Your task to perform on an android device: View the shopping cart on newegg. Search for "alienware area 51" on newegg, select the first entry, add it to the cart, then select checkout. Image 0: 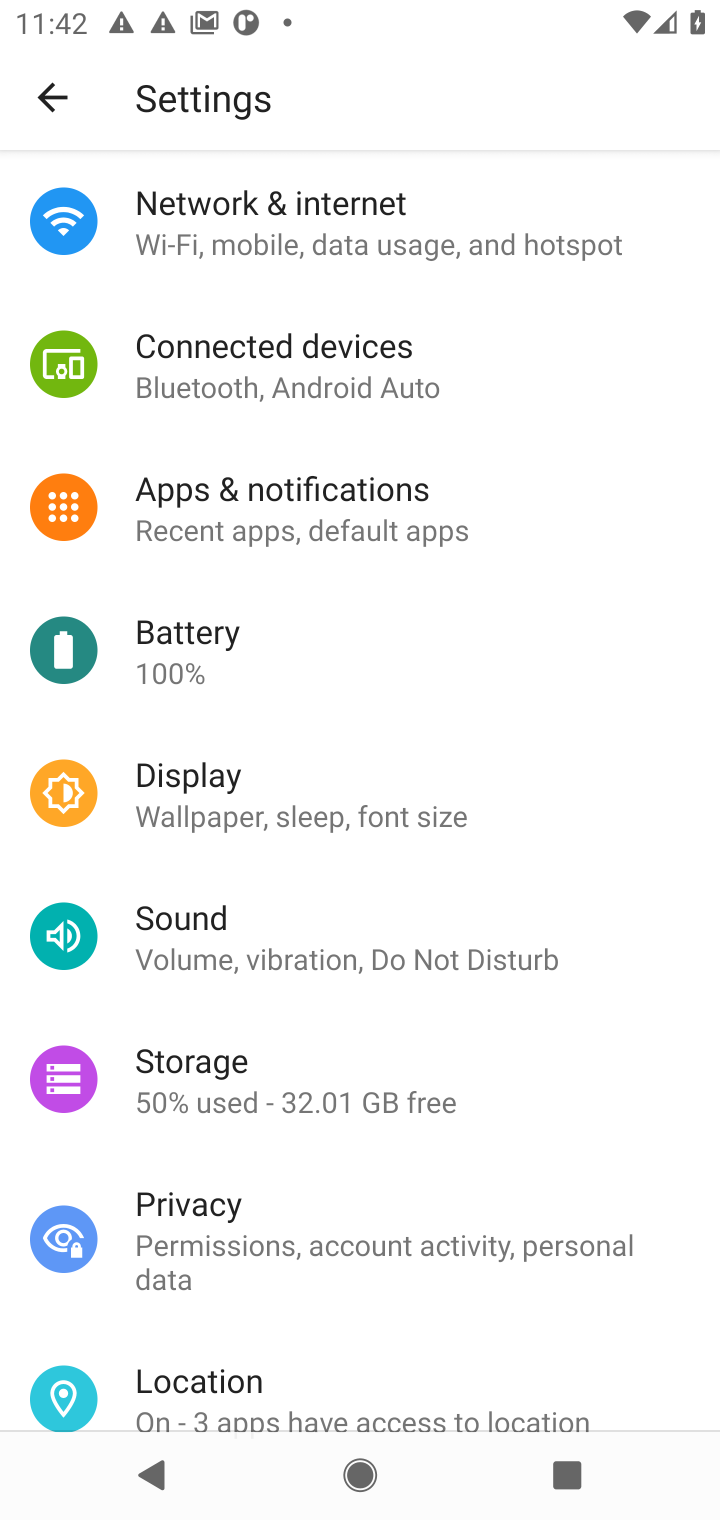
Step 0: press home button
Your task to perform on an android device: View the shopping cart on newegg. Search for "alienware area 51" on newegg, select the first entry, add it to the cart, then select checkout. Image 1: 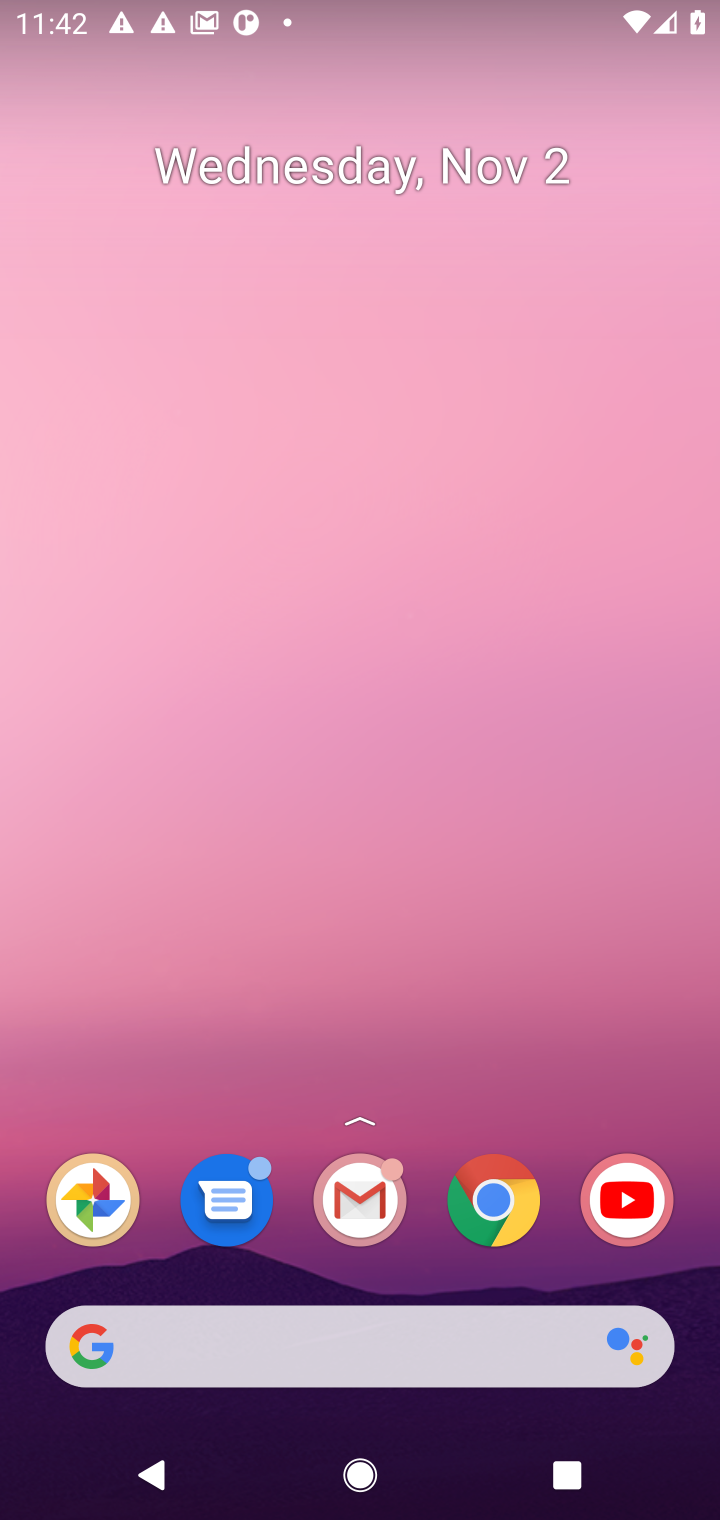
Step 1: click (496, 1189)
Your task to perform on an android device: View the shopping cart on newegg. Search for "alienware area 51" on newegg, select the first entry, add it to the cart, then select checkout. Image 2: 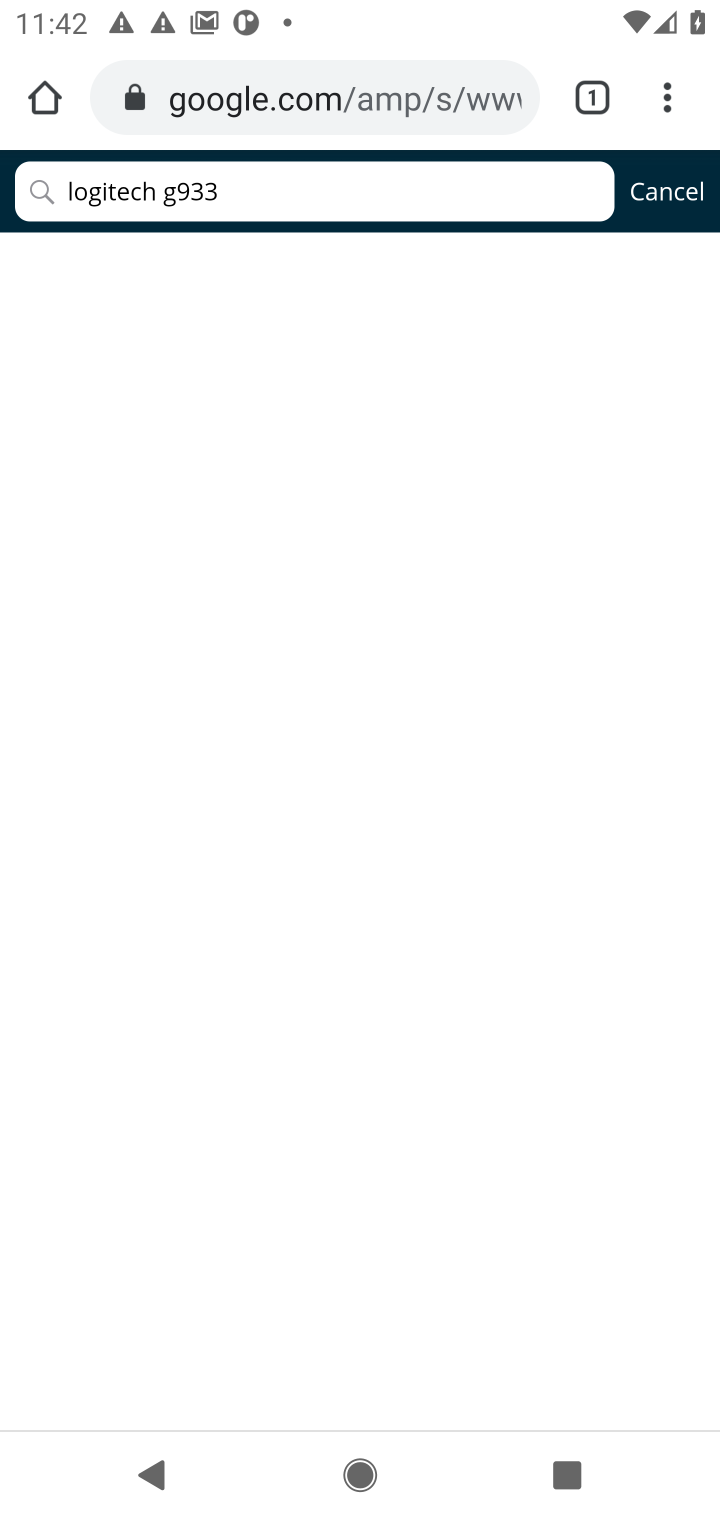
Step 2: click (40, 96)
Your task to perform on an android device: View the shopping cart on newegg. Search for "alienware area 51" on newegg, select the first entry, add it to the cart, then select checkout. Image 3: 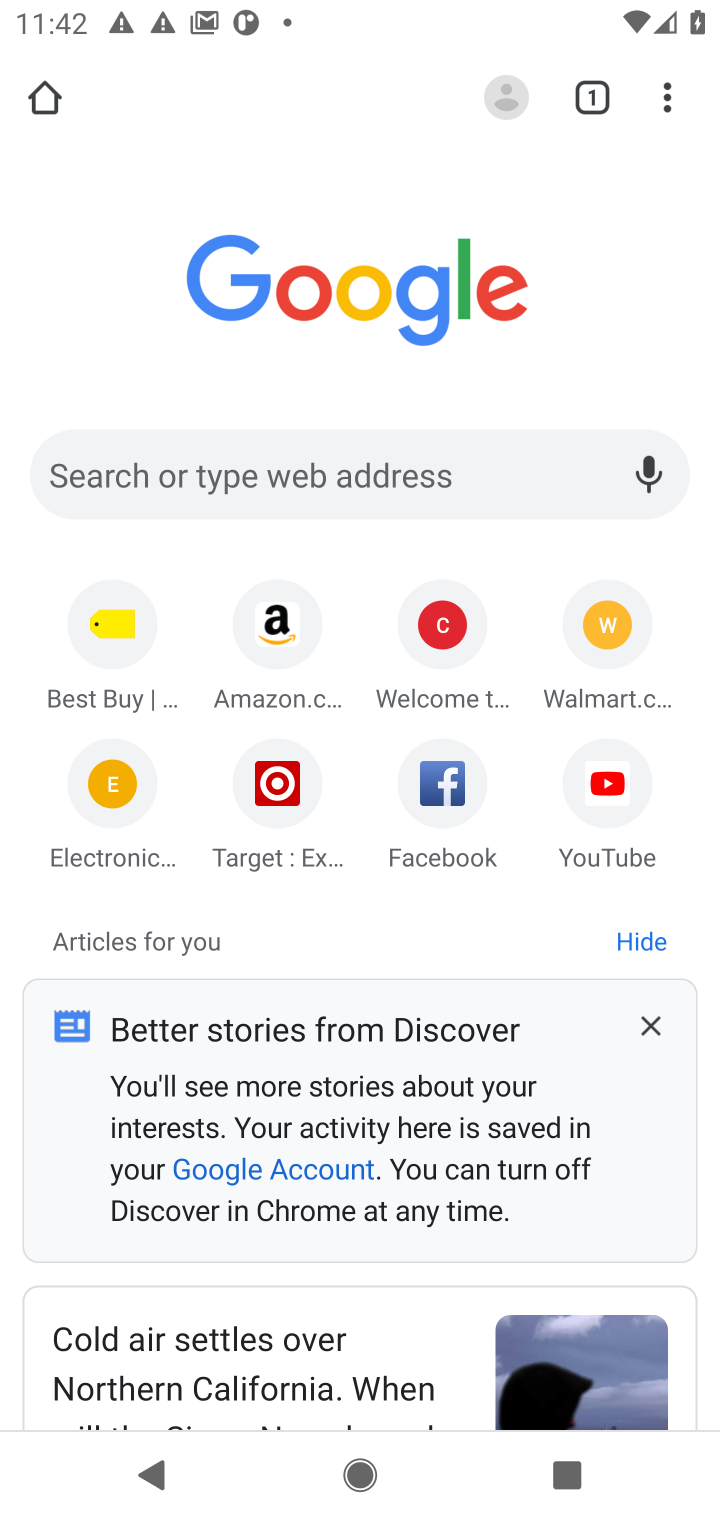
Step 3: click (521, 463)
Your task to perform on an android device: View the shopping cart on newegg. Search for "alienware area 51" on newegg, select the first entry, add it to the cart, then select checkout. Image 4: 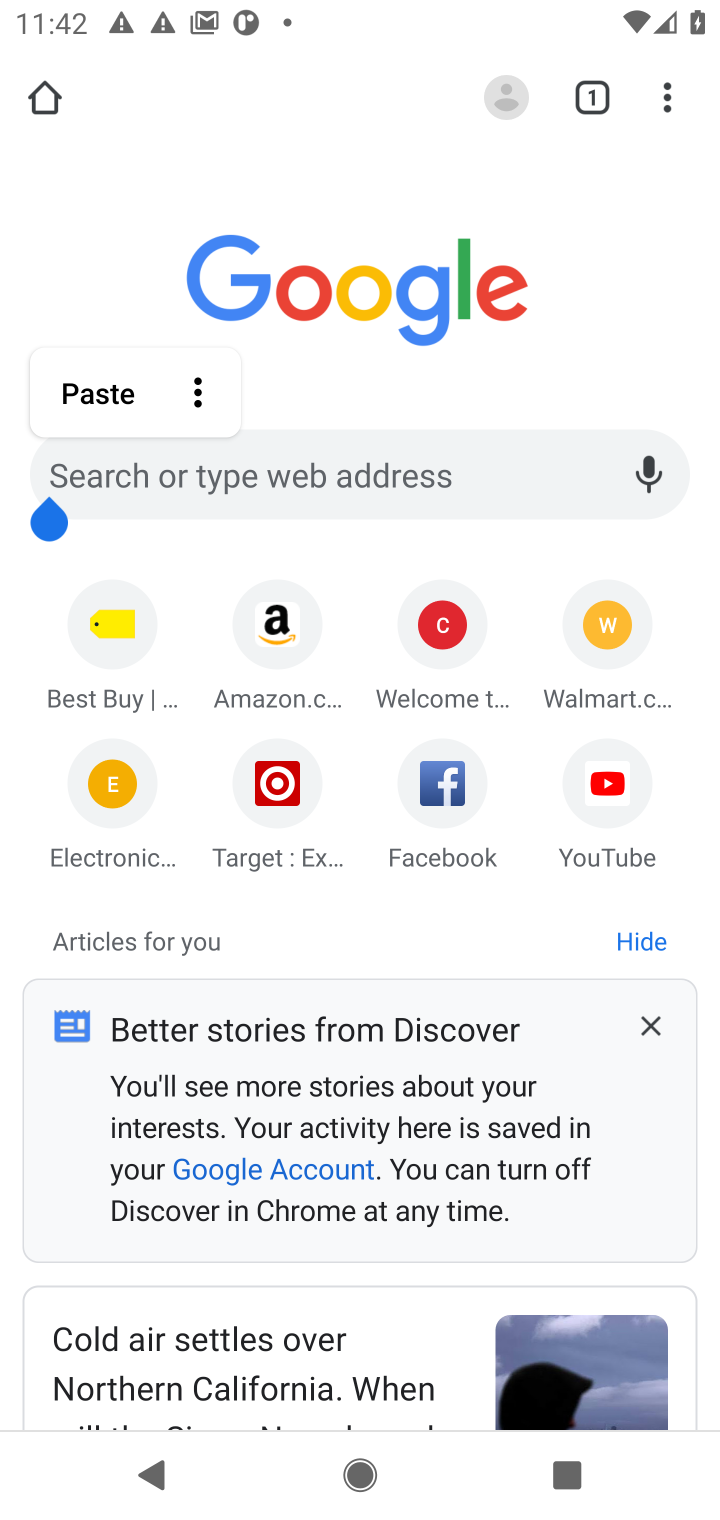
Step 4: click (521, 463)
Your task to perform on an android device: View the shopping cart on newegg. Search for "alienware area 51" on newegg, select the first entry, add it to the cart, then select checkout. Image 5: 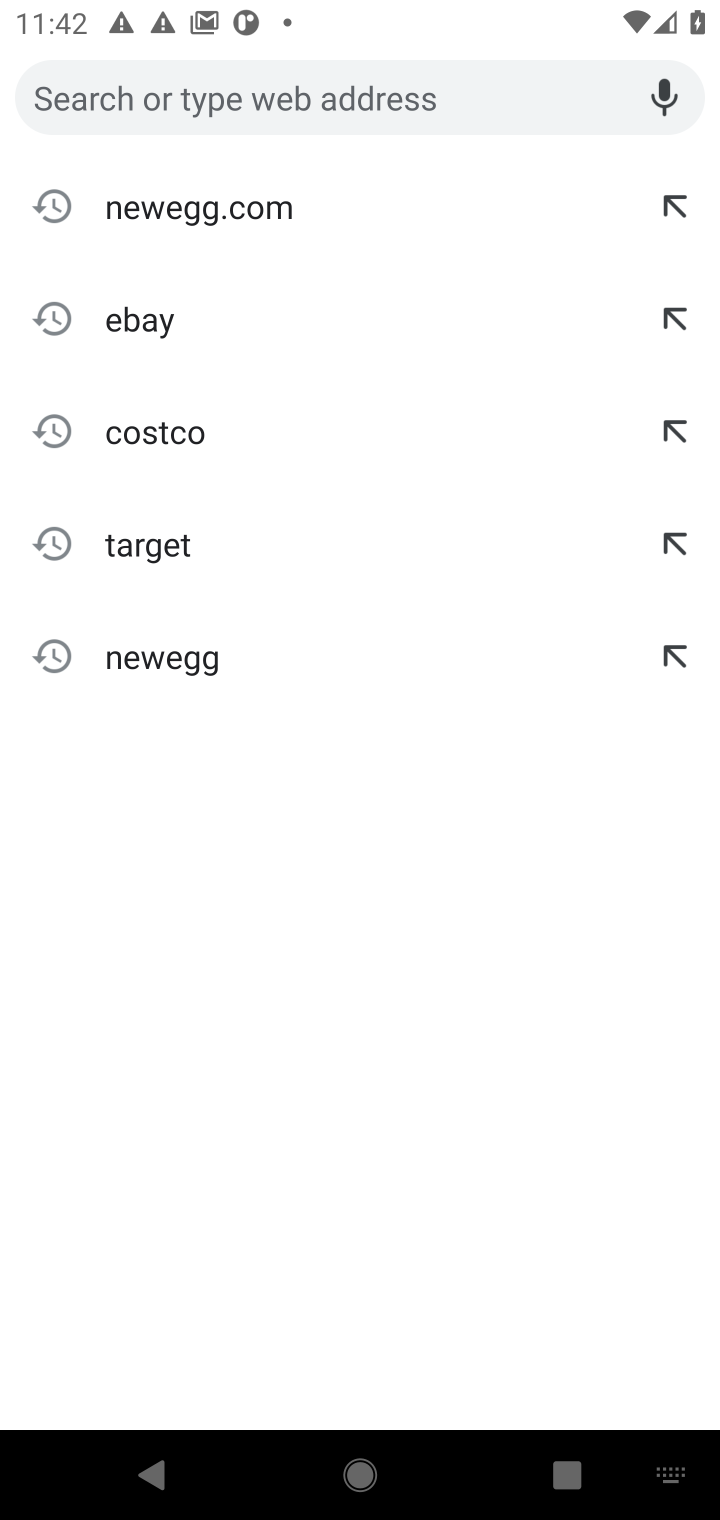
Step 5: click (215, 208)
Your task to perform on an android device: View the shopping cart on newegg. Search for "alienware area 51" on newegg, select the first entry, add it to the cart, then select checkout. Image 6: 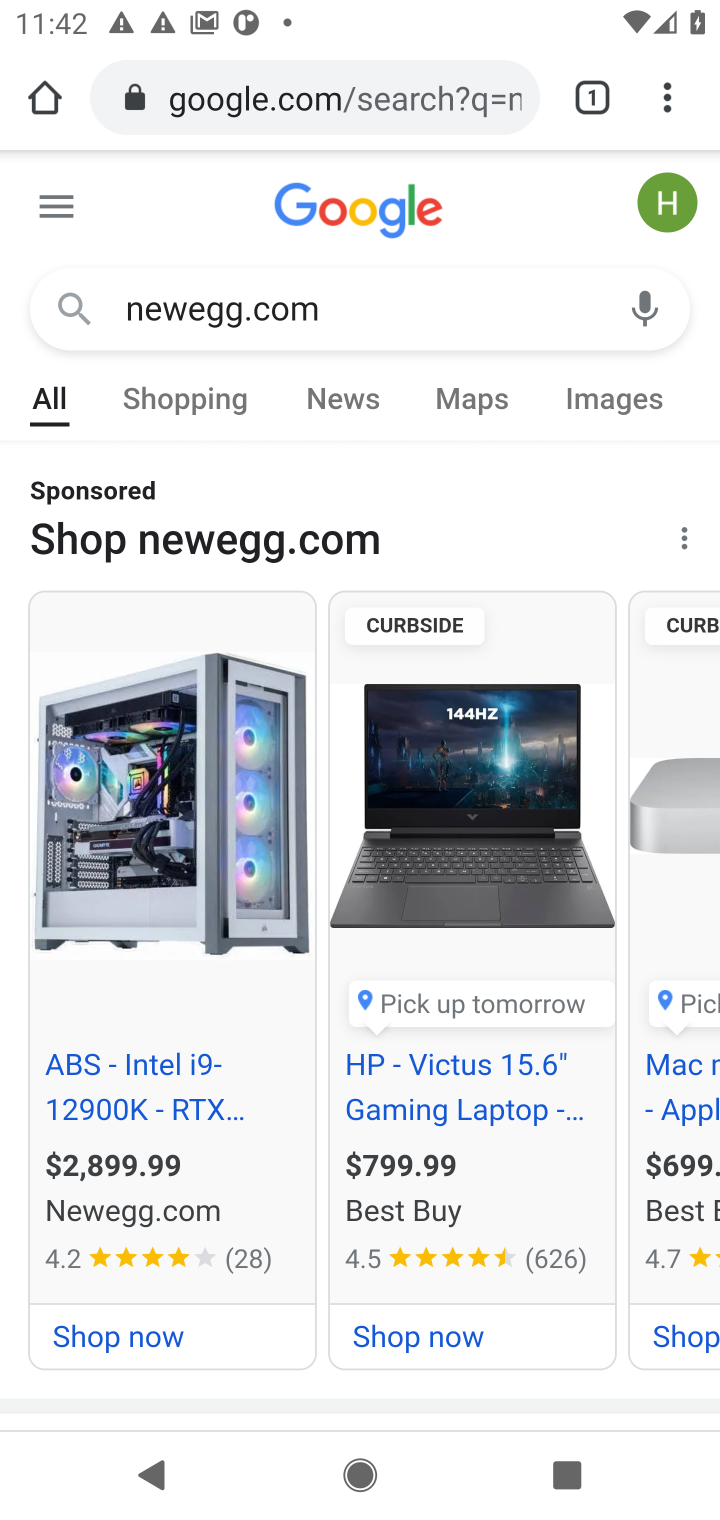
Step 6: drag from (408, 1177) to (448, 392)
Your task to perform on an android device: View the shopping cart on newegg. Search for "alienware area 51" on newegg, select the first entry, add it to the cart, then select checkout. Image 7: 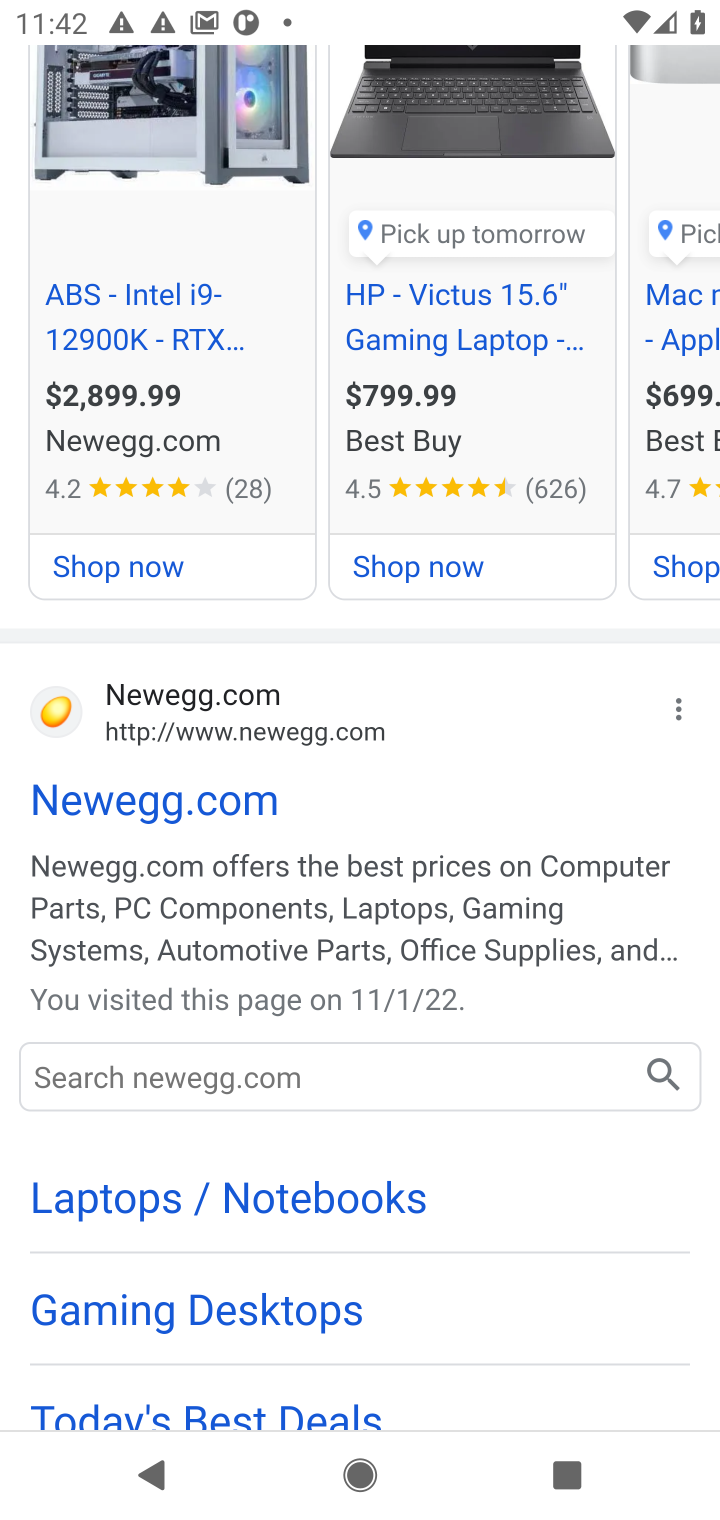
Step 7: click (313, 736)
Your task to perform on an android device: View the shopping cart on newegg. Search for "alienware area 51" on newegg, select the first entry, add it to the cart, then select checkout. Image 8: 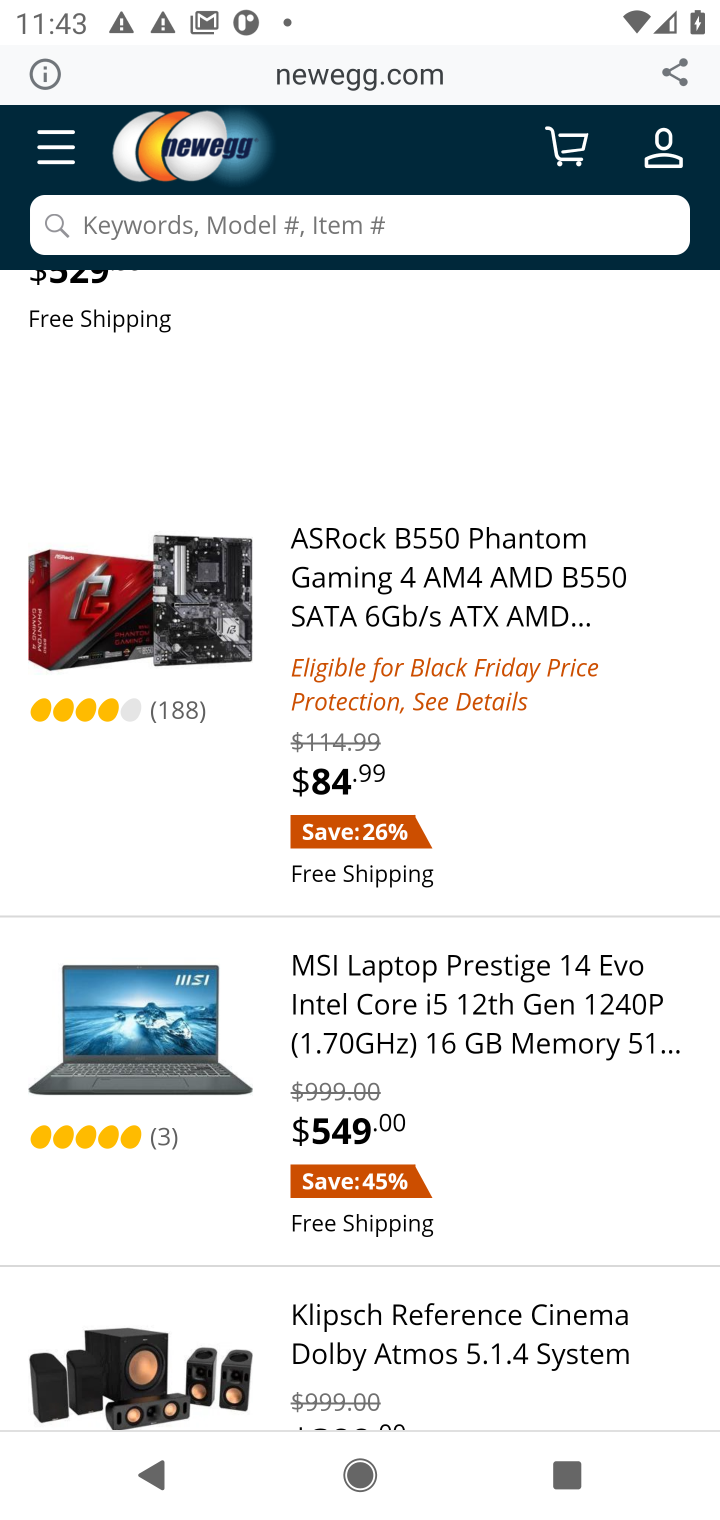
Step 8: click (300, 238)
Your task to perform on an android device: View the shopping cart on newegg. Search for "alienware area 51" on newegg, select the first entry, add it to the cart, then select checkout. Image 9: 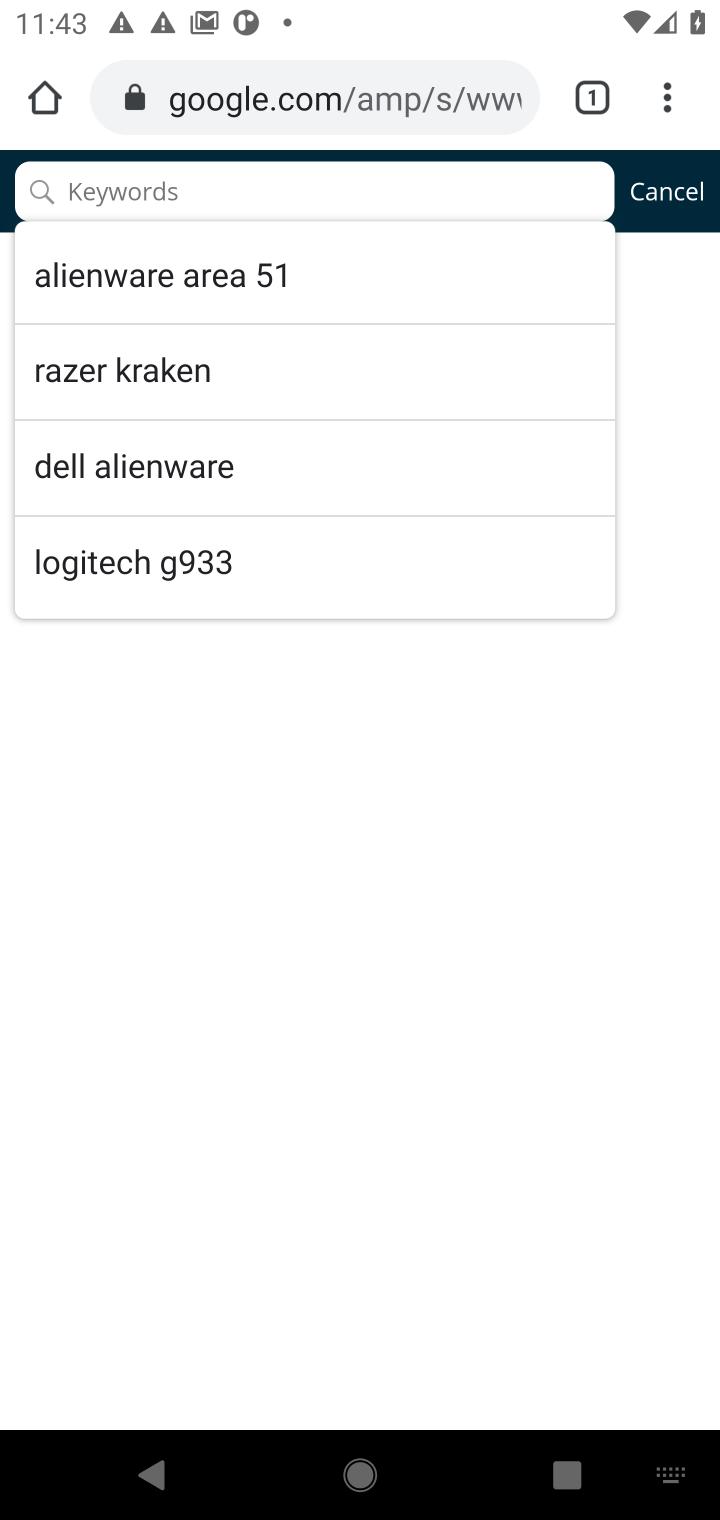
Step 9: click (236, 275)
Your task to perform on an android device: View the shopping cart on newegg. Search for "alienware area 51" on newegg, select the first entry, add it to the cart, then select checkout. Image 10: 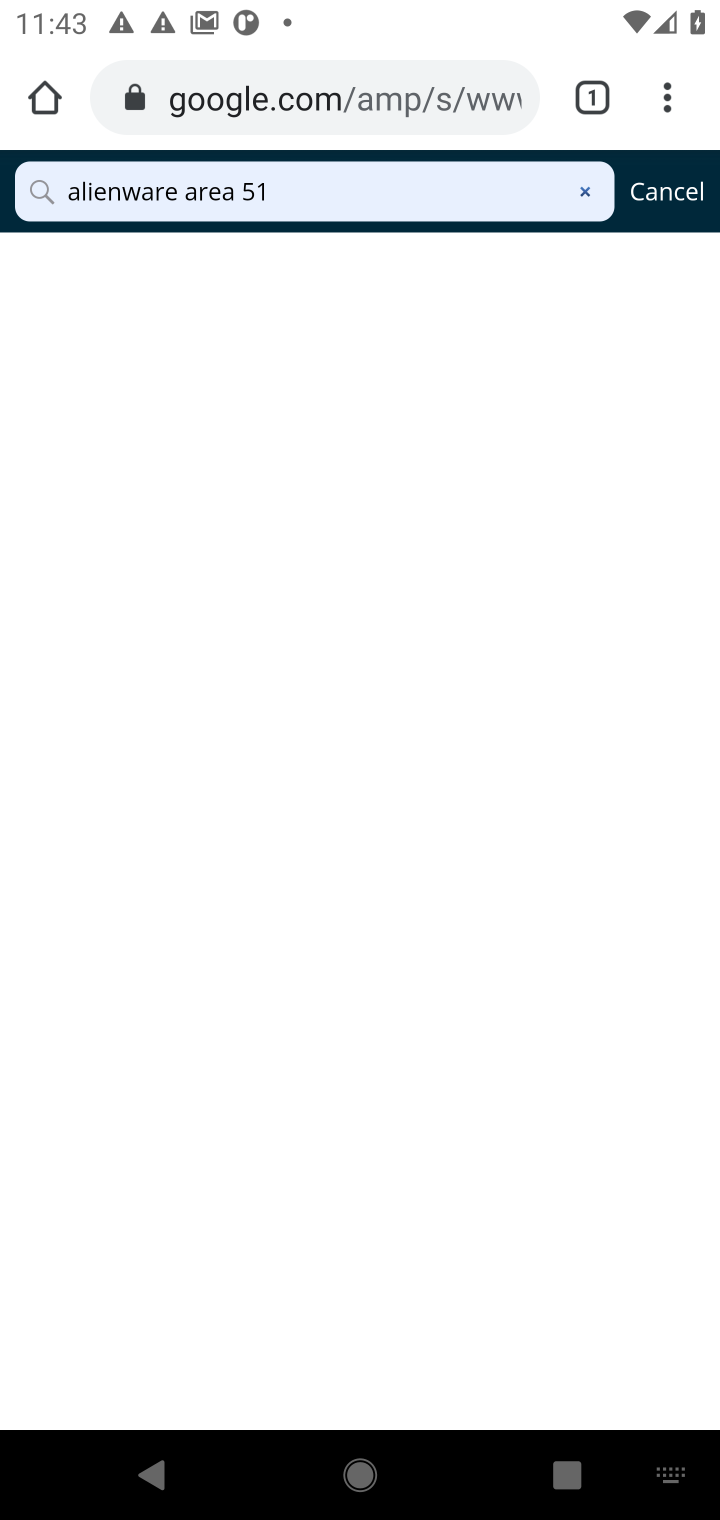
Step 10: click (633, 339)
Your task to perform on an android device: View the shopping cart on newegg. Search for "alienware area 51" on newegg, select the first entry, add it to the cart, then select checkout. Image 11: 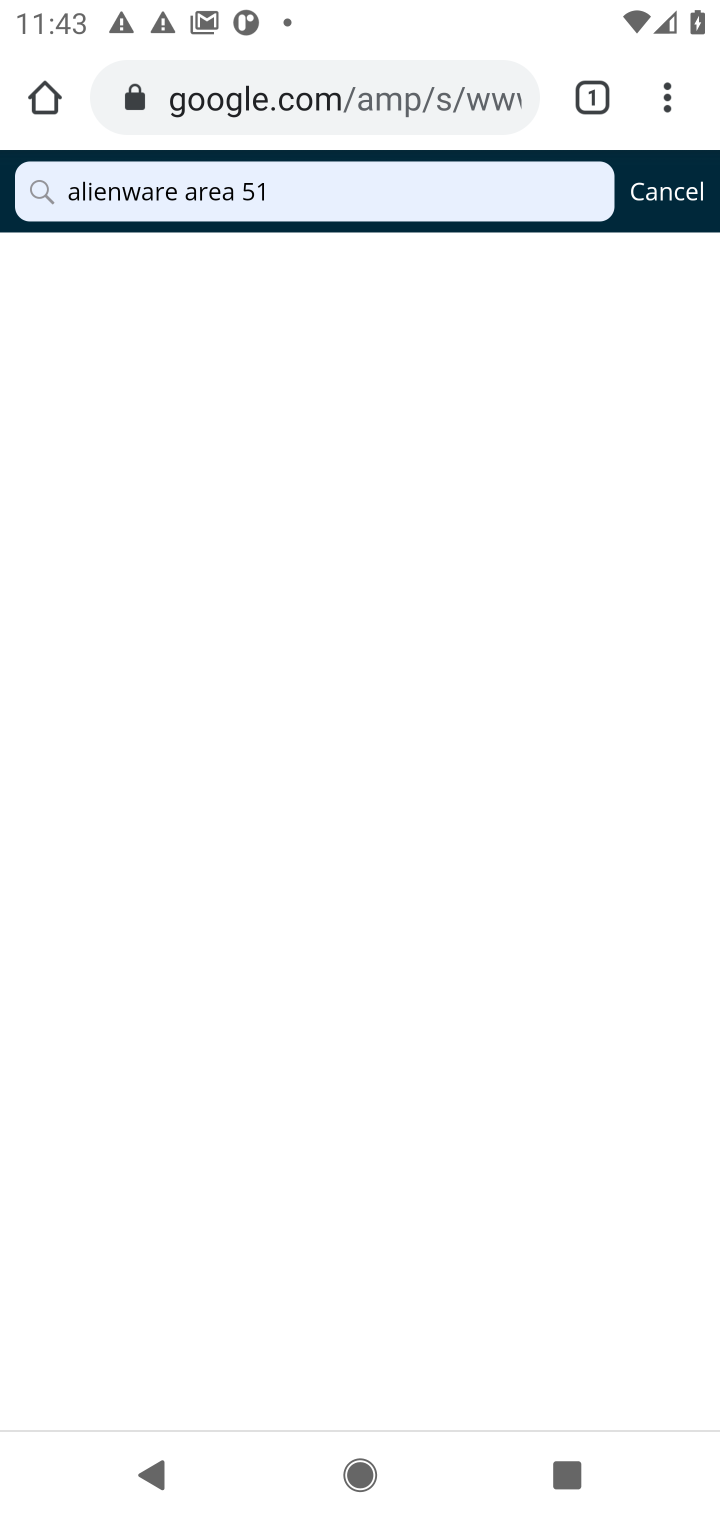
Step 11: click (633, 339)
Your task to perform on an android device: View the shopping cart on newegg. Search for "alienware area 51" on newegg, select the first entry, add it to the cart, then select checkout. Image 12: 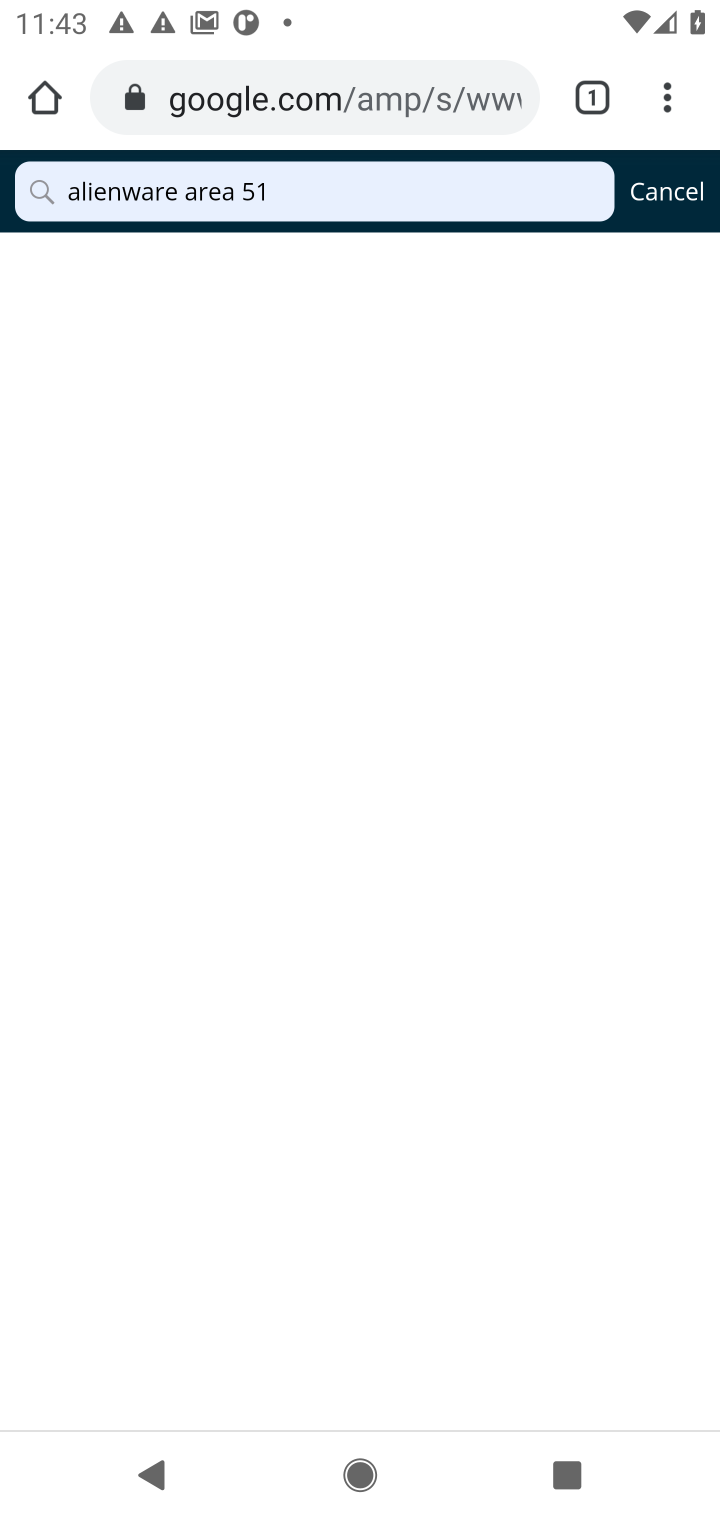
Step 12: click (576, 205)
Your task to perform on an android device: View the shopping cart on newegg. Search for "alienware area 51" on newegg, select the first entry, add it to the cart, then select checkout. Image 13: 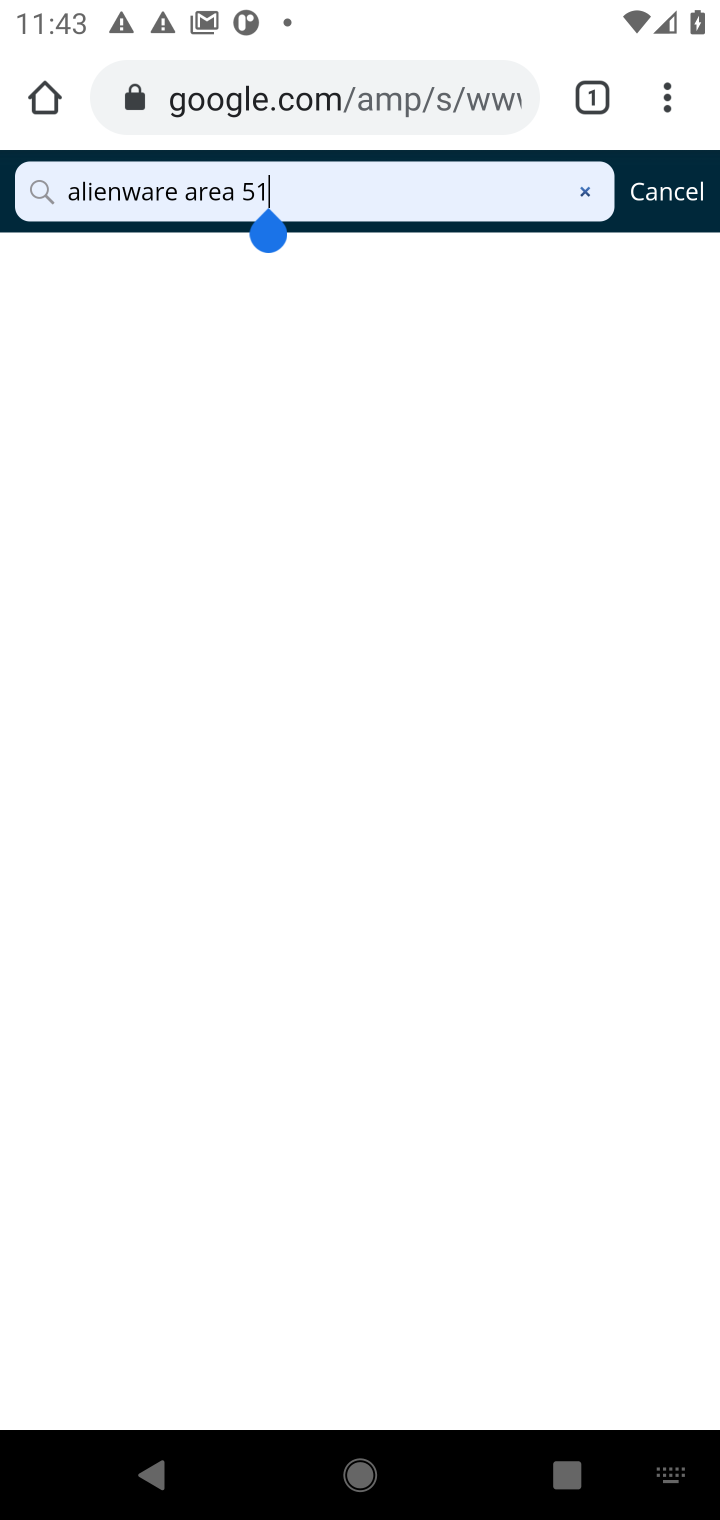
Step 13: click (667, 200)
Your task to perform on an android device: View the shopping cart on newegg. Search for "alienware area 51" on newegg, select the first entry, add it to the cart, then select checkout. Image 14: 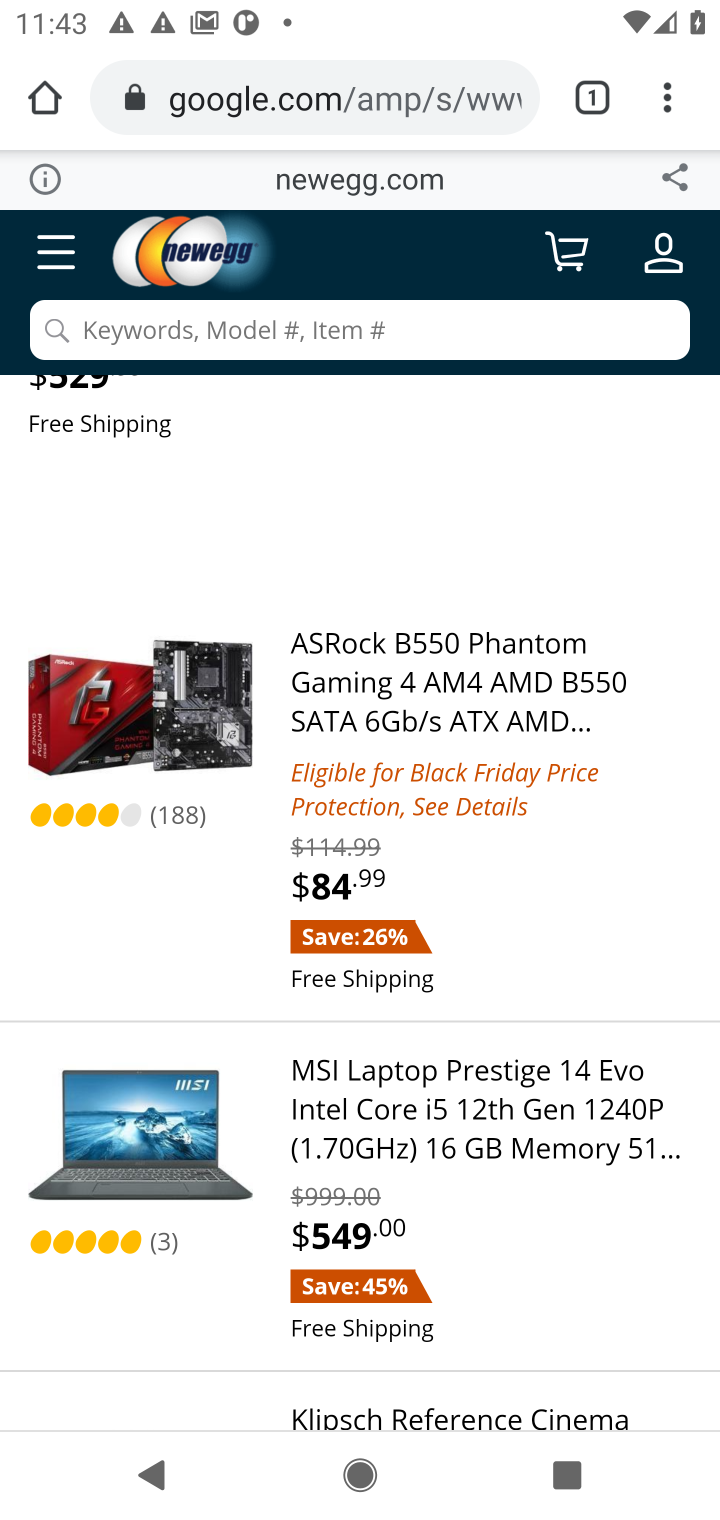
Step 14: click (584, 333)
Your task to perform on an android device: View the shopping cart on newegg. Search for "alienware area 51" on newegg, select the first entry, add it to the cart, then select checkout. Image 15: 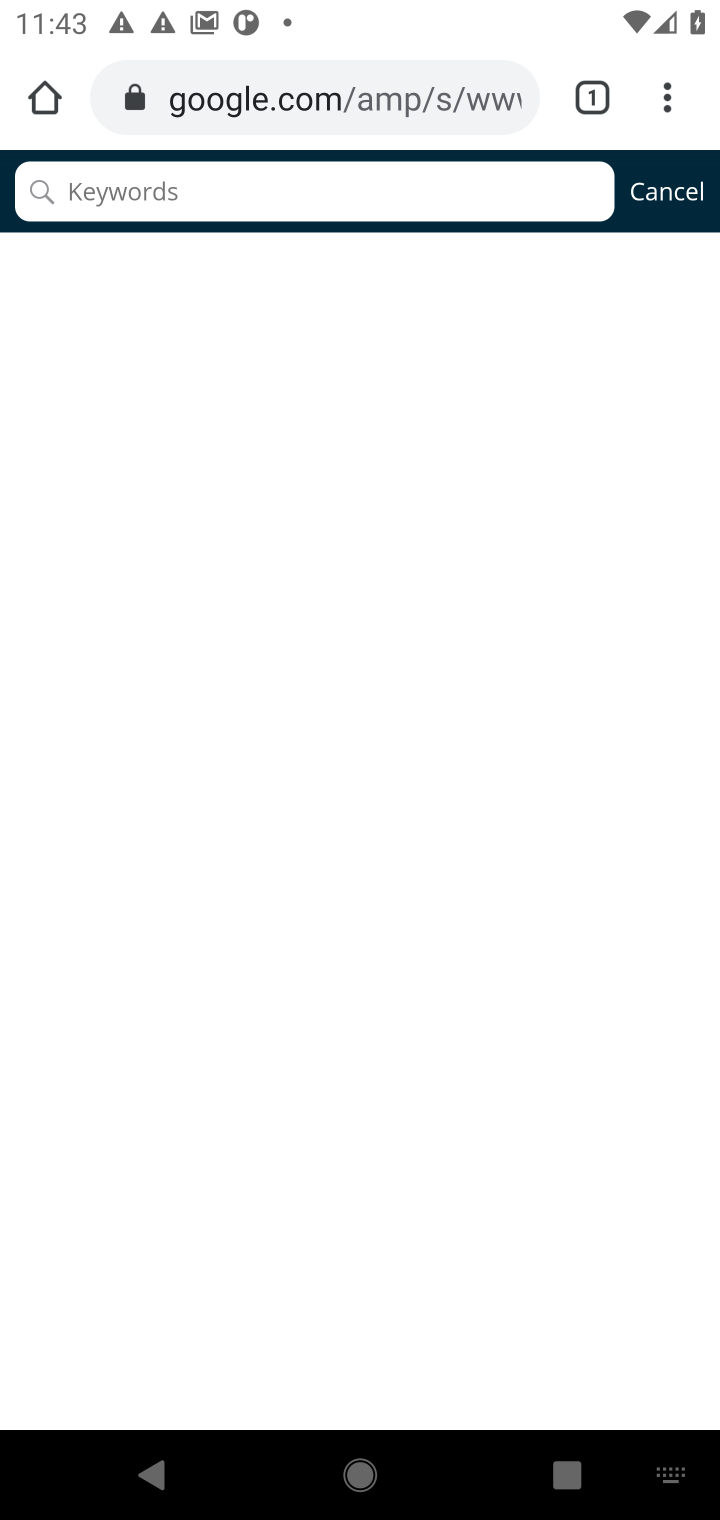
Step 15: type "alienware area 51"
Your task to perform on an android device: View the shopping cart on newegg. Search for "alienware area 51" on newegg, select the first entry, add it to the cart, then select checkout. Image 16: 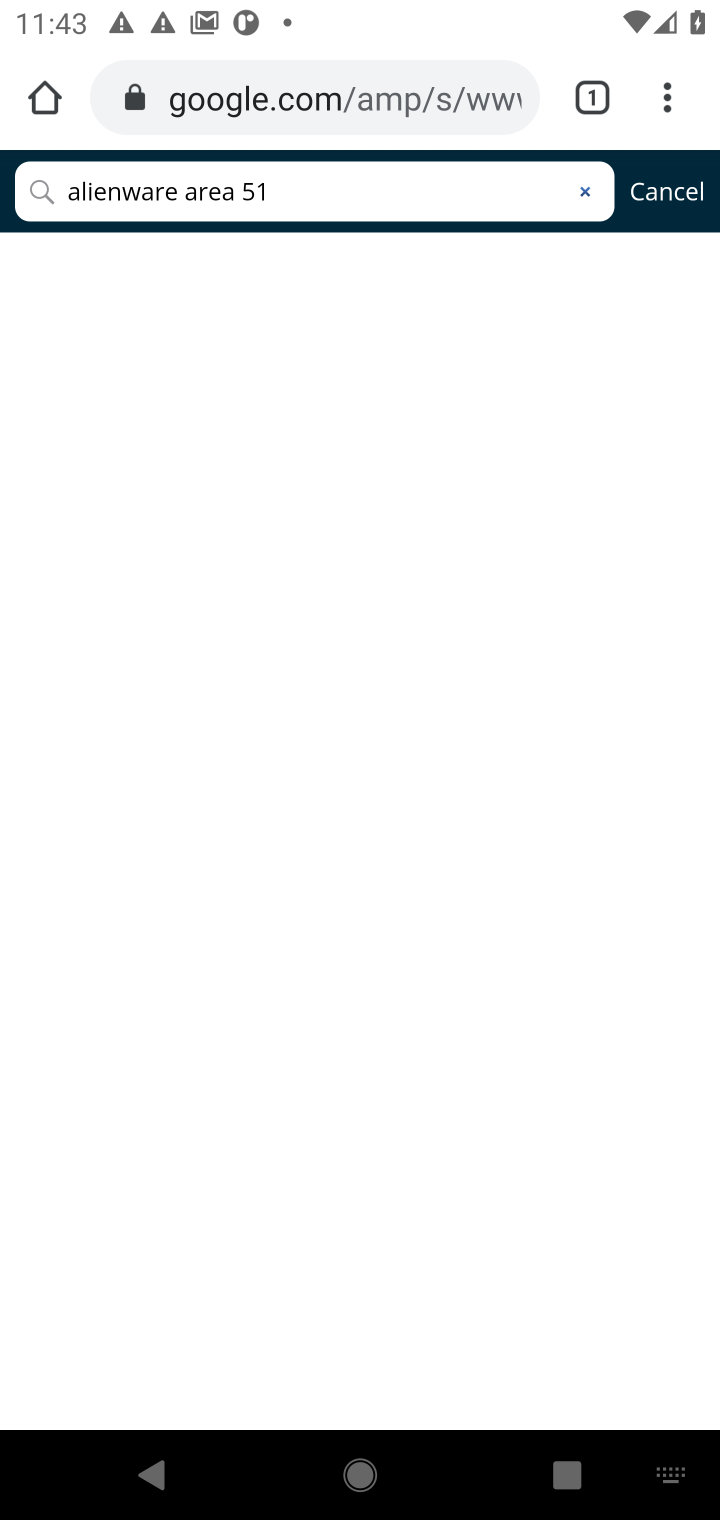
Step 16: click (622, 382)
Your task to perform on an android device: View the shopping cart on newegg. Search for "alienware area 51" on newegg, select the first entry, add it to the cart, then select checkout. Image 17: 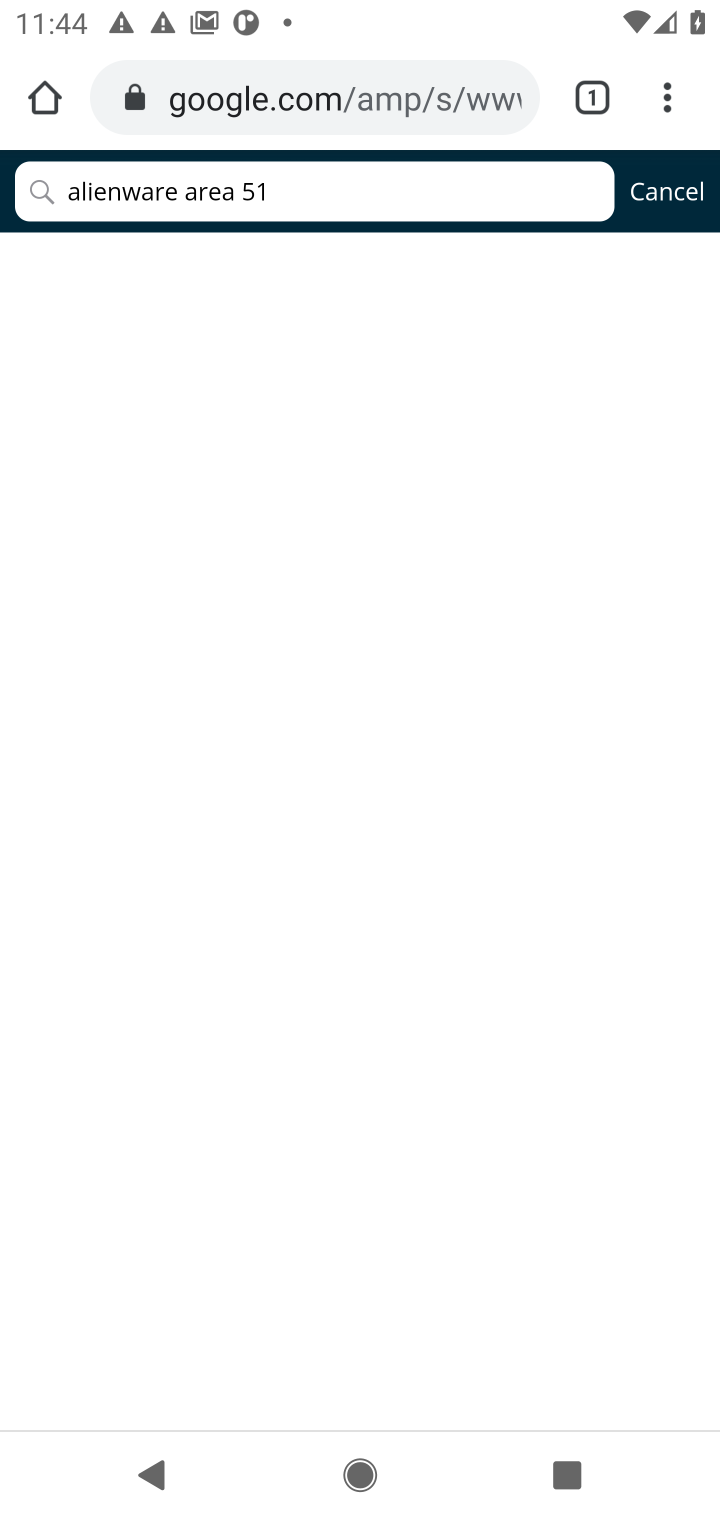
Step 17: click (450, 485)
Your task to perform on an android device: View the shopping cart on newegg. Search for "alienware area 51" on newegg, select the first entry, add it to the cart, then select checkout. Image 18: 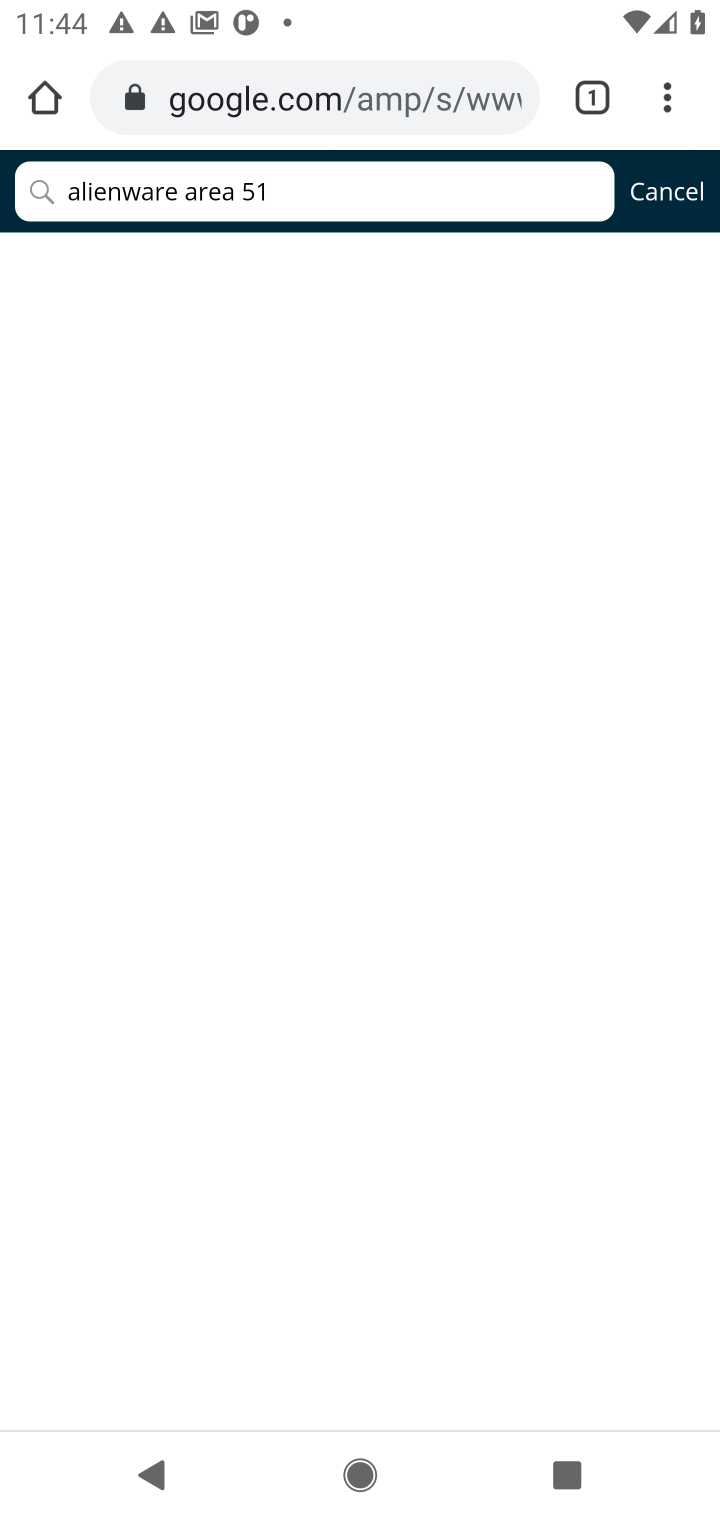
Step 18: task complete